Your task to perform on an android device: manage bookmarks in the chrome app Image 0: 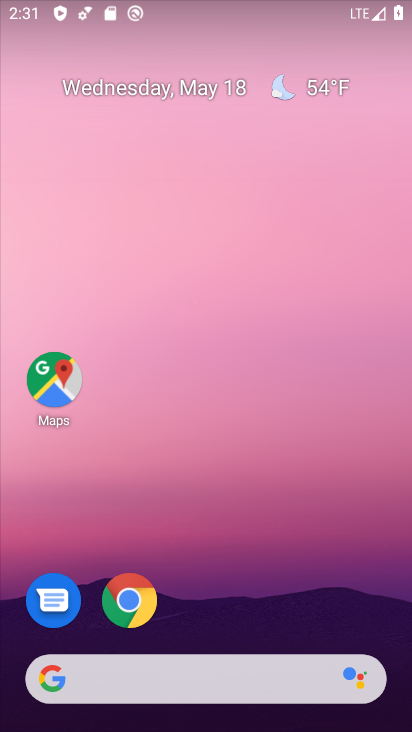
Step 0: press home button
Your task to perform on an android device: manage bookmarks in the chrome app Image 1: 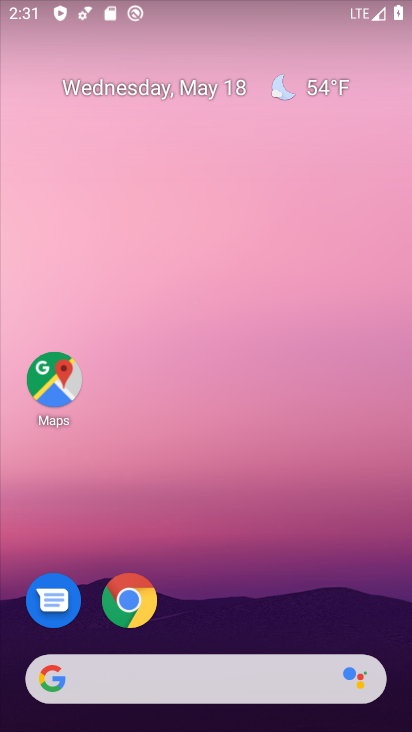
Step 1: click (135, 596)
Your task to perform on an android device: manage bookmarks in the chrome app Image 2: 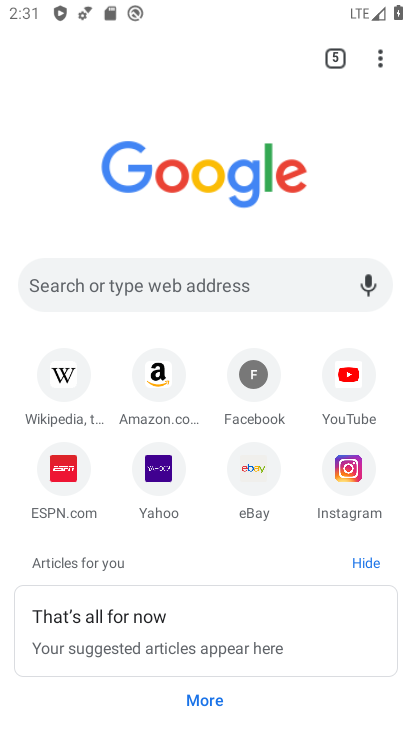
Step 2: task complete